Your task to perform on an android device: turn off picture-in-picture Image 0: 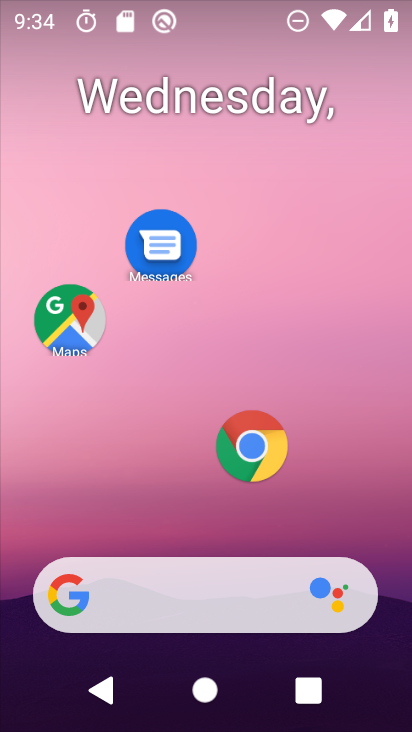
Step 0: press home button
Your task to perform on an android device: turn off picture-in-picture Image 1: 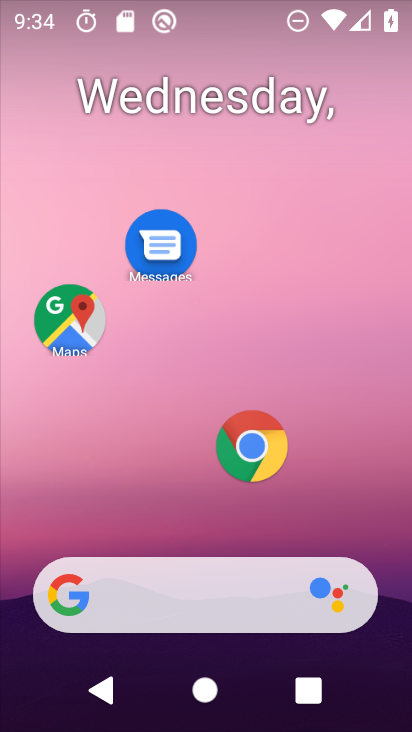
Step 1: click (251, 441)
Your task to perform on an android device: turn off picture-in-picture Image 2: 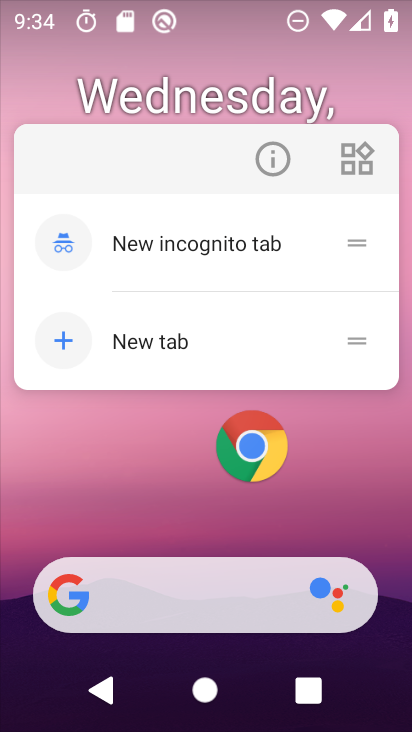
Step 2: click (277, 158)
Your task to perform on an android device: turn off picture-in-picture Image 3: 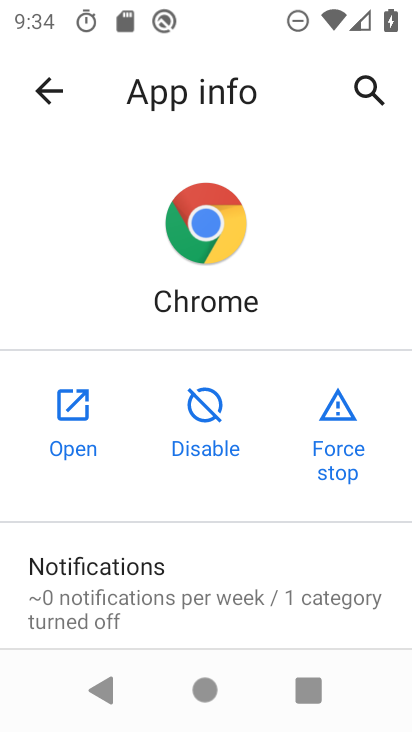
Step 3: drag from (195, 584) to (267, 173)
Your task to perform on an android device: turn off picture-in-picture Image 4: 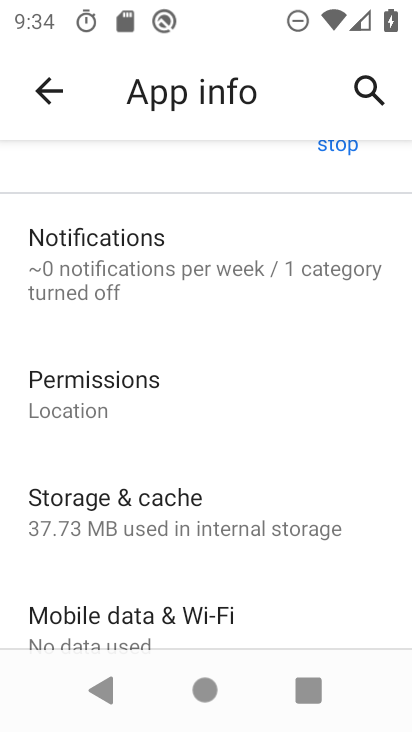
Step 4: drag from (187, 598) to (279, 224)
Your task to perform on an android device: turn off picture-in-picture Image 5: 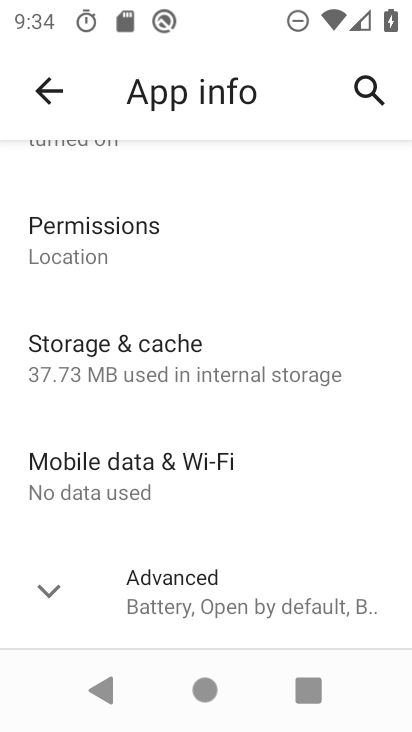
Step 5: click (169, 601)
Your task to perform on an android device: turn off picture-in-picture Image 6: 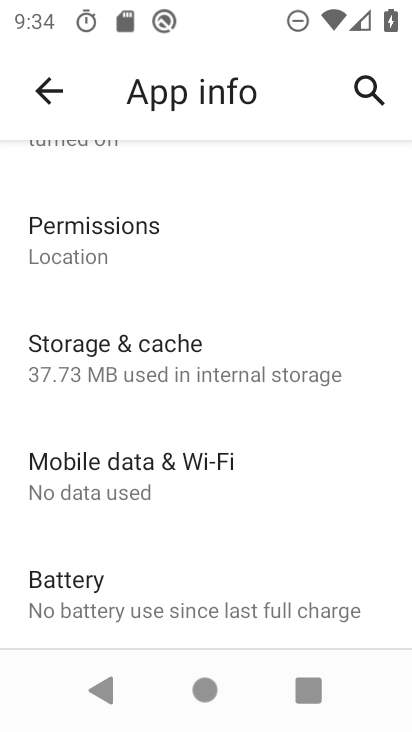
Step 6: drag from (159, 501) to (211, 300)
Your task to perform on an android device: turn off picture-in-picture Image 7: 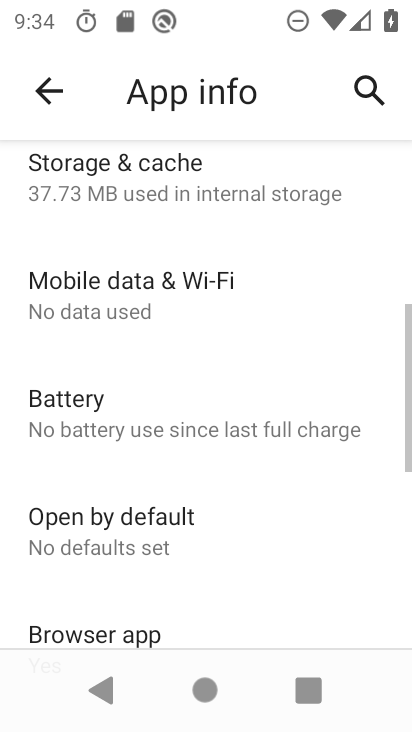
Step 7: drag from (212, 299) to (255, 244)
Your task to perform on an android device: turn off picture-in-picture Image 8: 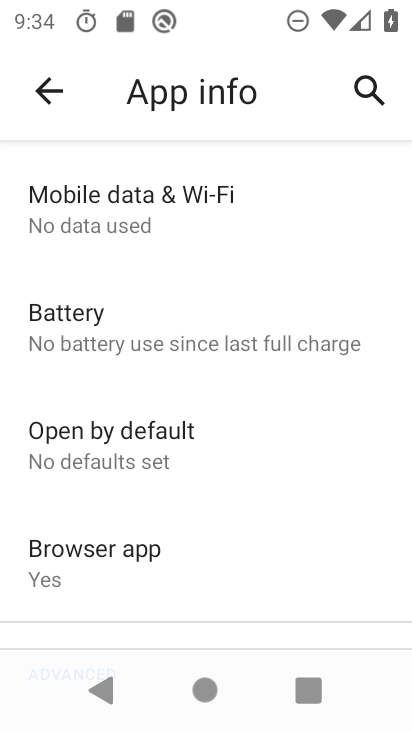
Step 8: drag from (192, 588) to (261, 299)
Your task to perform on an android device: turn off picture-in-picture Image 9: 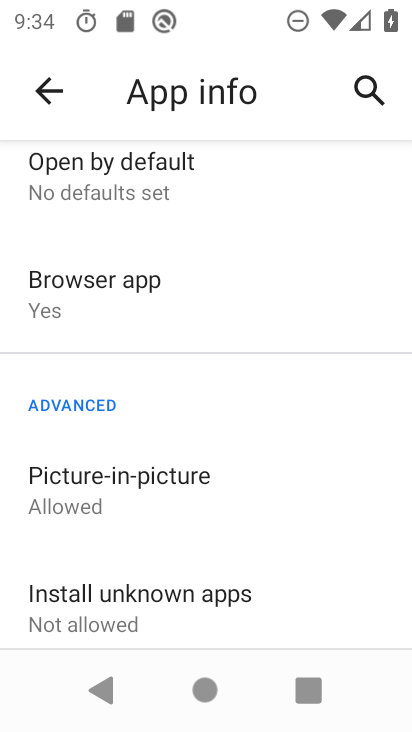
Step 9: click (136, 491)
Your task to perform on an android device: turn off picture-in-picture Image 10: 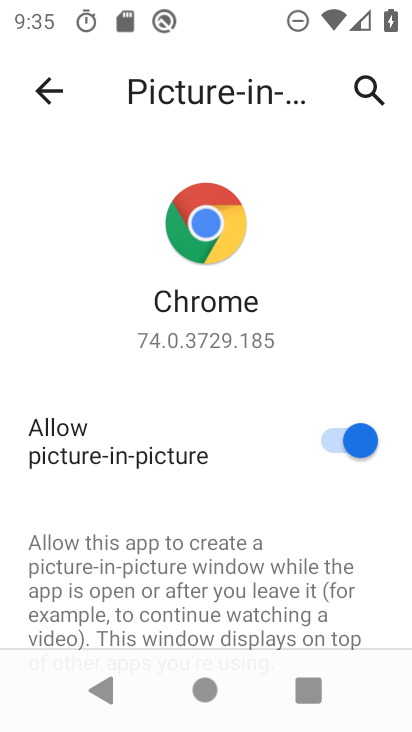
Step 10: click (346, 439)
Your task to perform on an android device: turn off picture-in-picture Image 11: 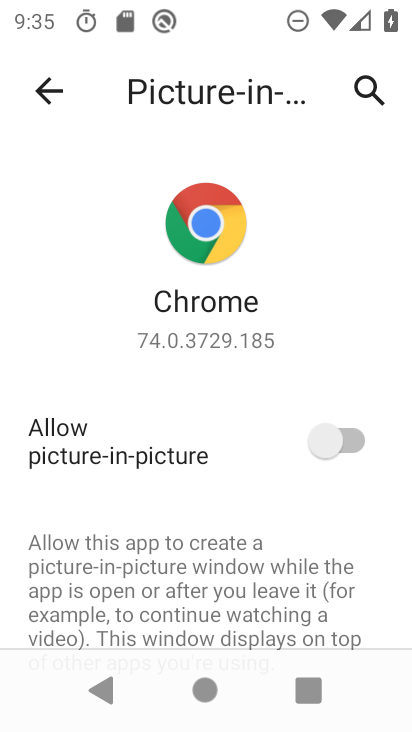
Step 11: task complete